Your task to perform on an android device: change the clock display to analog Image 0: 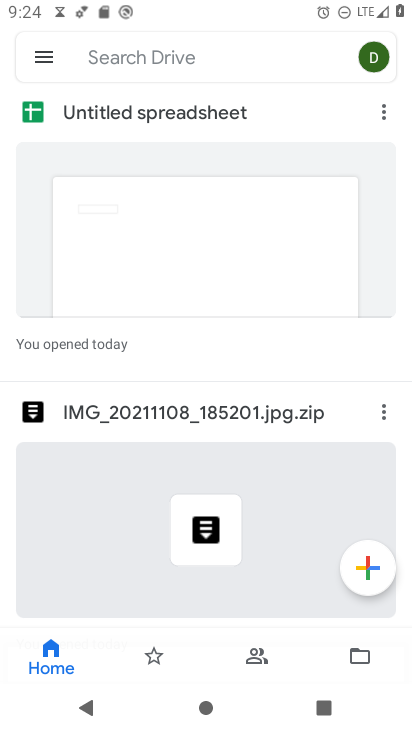
Step 0: press home button
Your task to perform on an android device: change the clock display to analog Image 1: 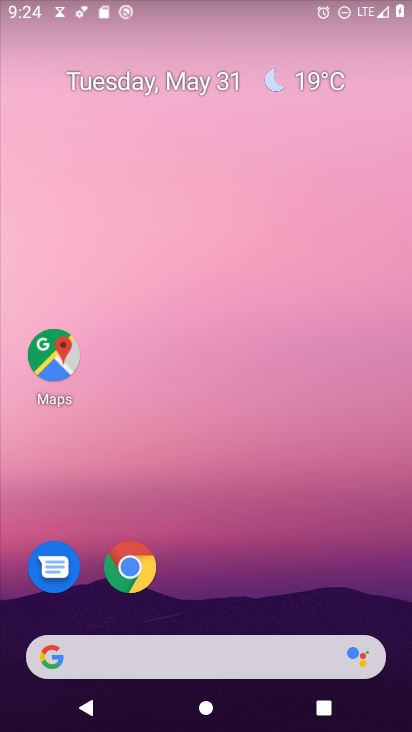
Step 1: drag from (197, 624) to (298, 134)
Your task to perform on an android device: change the clock display to analog Image 2: 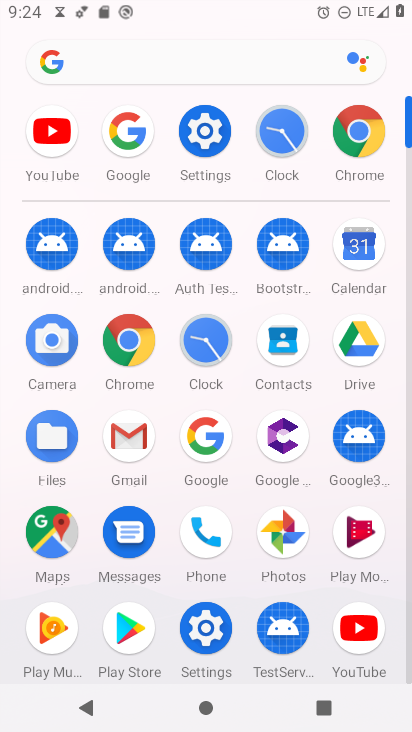
Step 2: click (291, 117)
Your task to perform on an android device: change the clock display to analog Image 3: 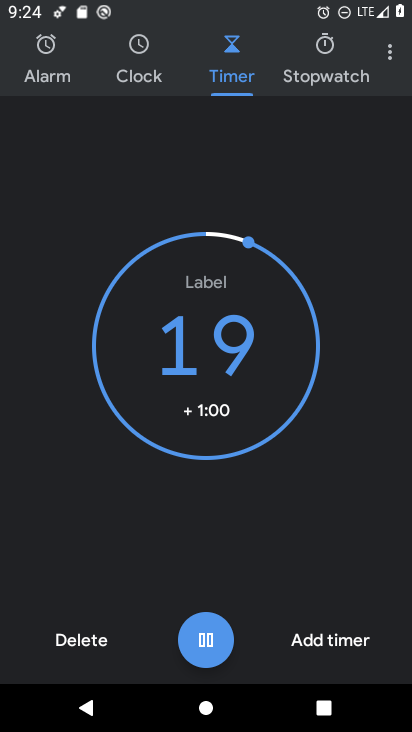
Step 3: click (385, 52)
Your task to perform on an android device: change the clock display to analog Image 4: 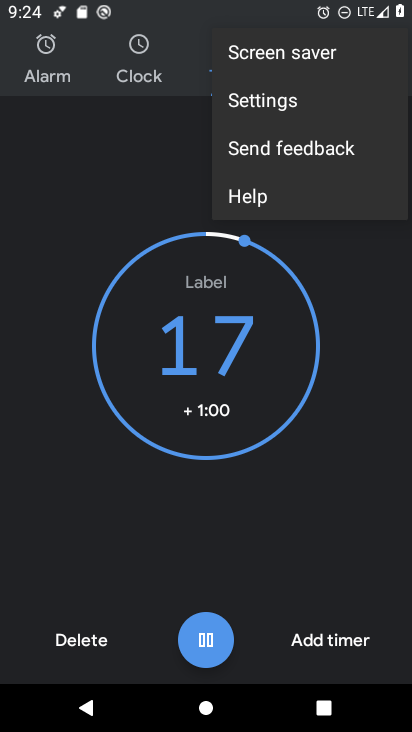
Step 4: click (268, 101)
Your task to perform on an android device: change the clock display to analog Image 5: 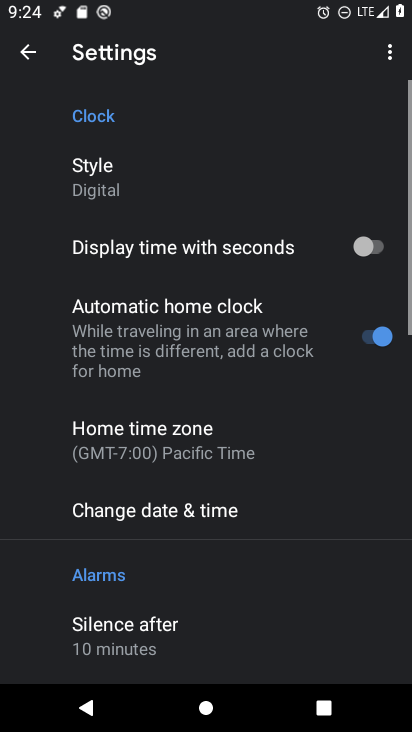
Step 5: click (114, 163)
Your task to perform on an android device: change the clock display to analog Image 6: 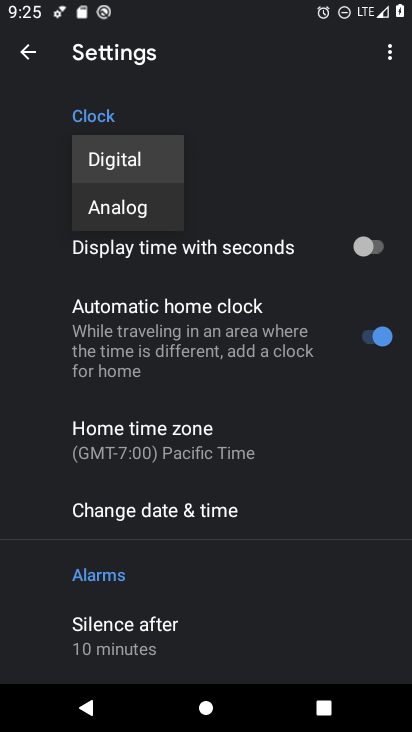
Step 6: click (127, 209)
Your task to perform on an android device: change the clock display to analog Image 7: 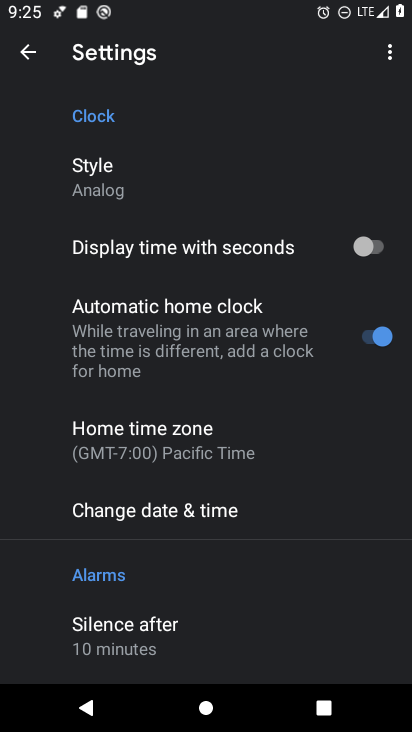
Step 7: task complete